Your task to perform on an android device: stop showing notifications on the lock screen Image 0: 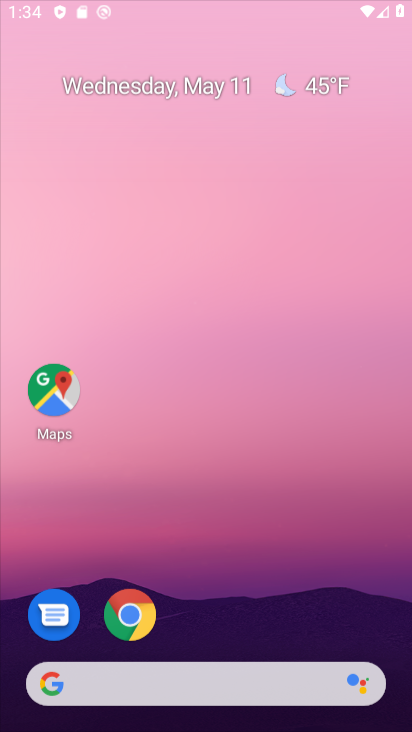
Step 0: drag from (351, 594) to (352, 162)
Your task to perform on an android device: stop showing notifications on the lock screen Image 1: 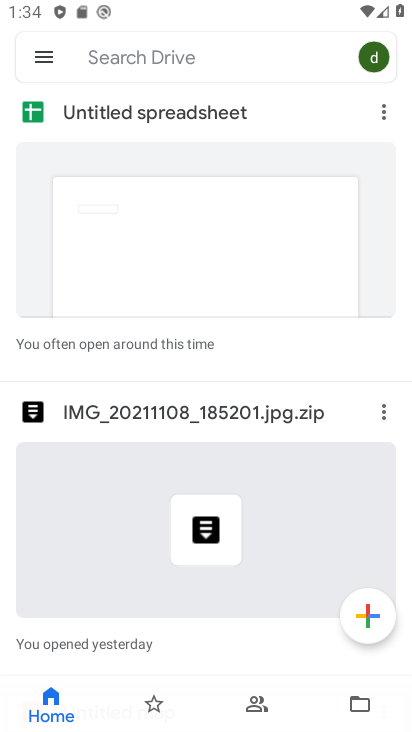
Step 1: press home button
Your task to perform on an android device: stop showing notifications on the lock screen Image 2: 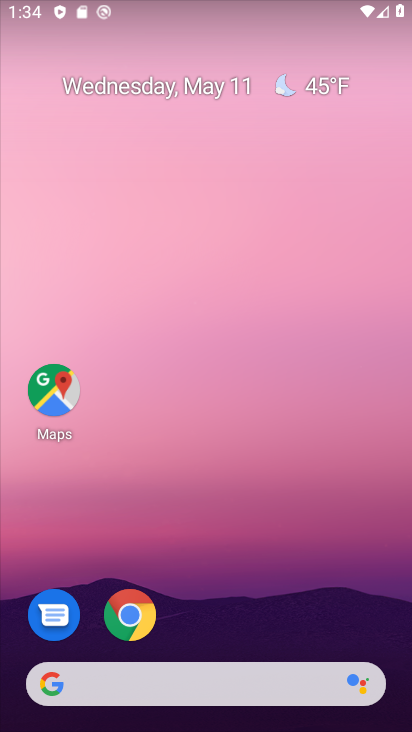
Step 2: drag from (358, 610) to (359, 118)
Your task to perform on an android device: stop showing notifications on the lock screen Image 3: 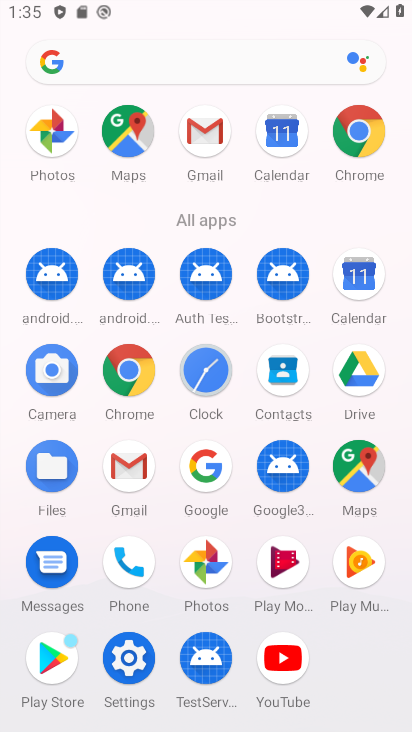
Step 3: click (129, 663)
Your task to perform on an android device: stop showing notifications on the lock screen Image 4: 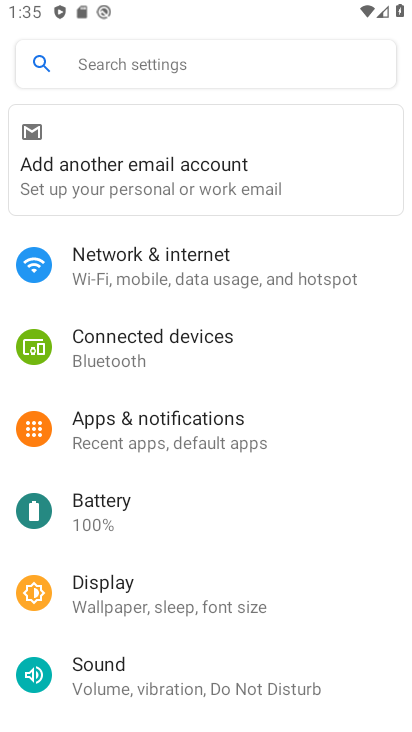
Step 4: click (180, 418)
Your task to perform on an android device: stop showing notifications on the lock screen Image 5: 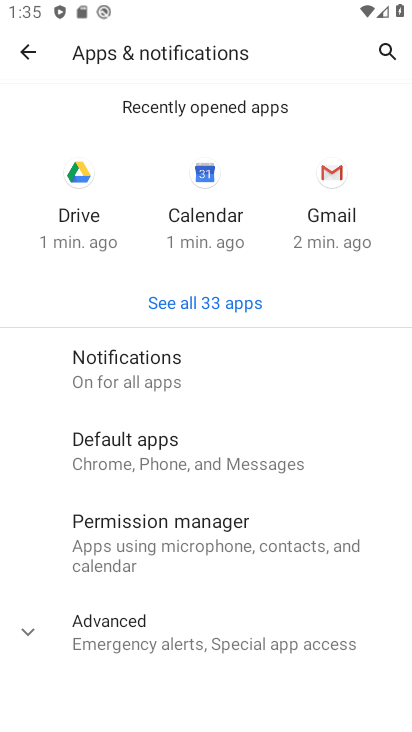
Step 5: click (157, 381)
Your task to perform on an android device: stop showing notifications on the lock screen Image 6: 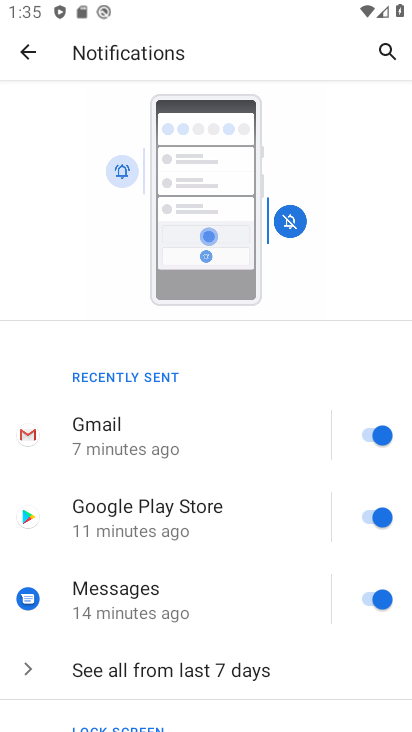
Step 6: drag from (198, 614) to (239, 310)
Your task to perform on an android device: stop showing notifications on the lock screen Image 7: 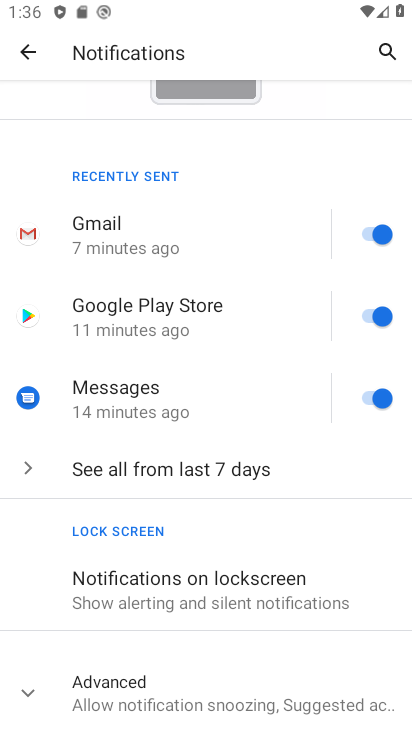
Step 7: drag from (259, 638) to (273, 380)
Your task to perform on an android device: stop showing notifications on the lock screen Image 8: 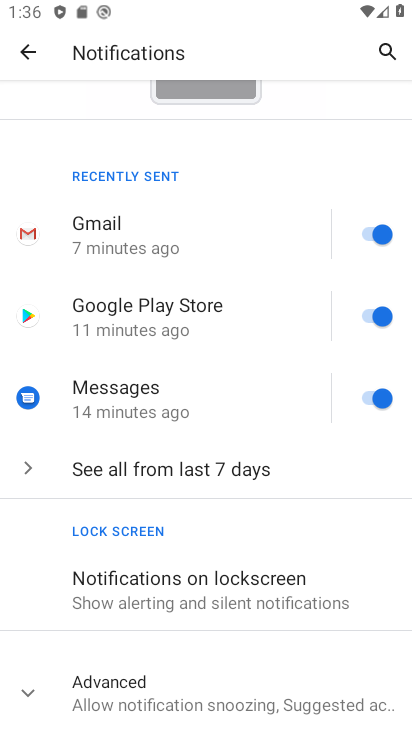
Step 8: click (212, 570)
Your task to perform on an android device: stop showing notifications on the lock screen Image 9: 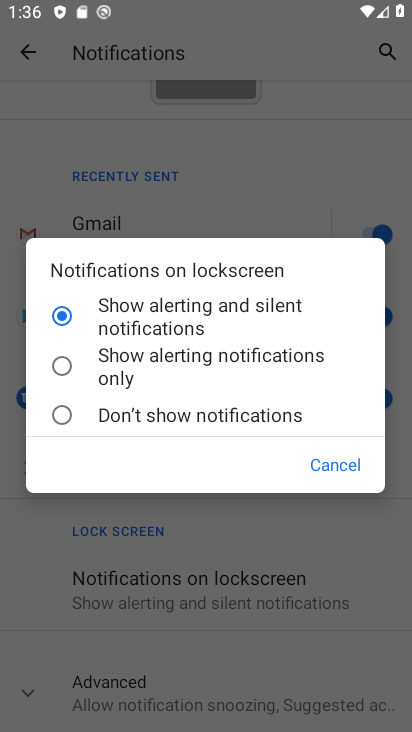
Step 9: click (132, 416)
Your task to perform on an android device: stop showing notifications on the lock screen Image 10: 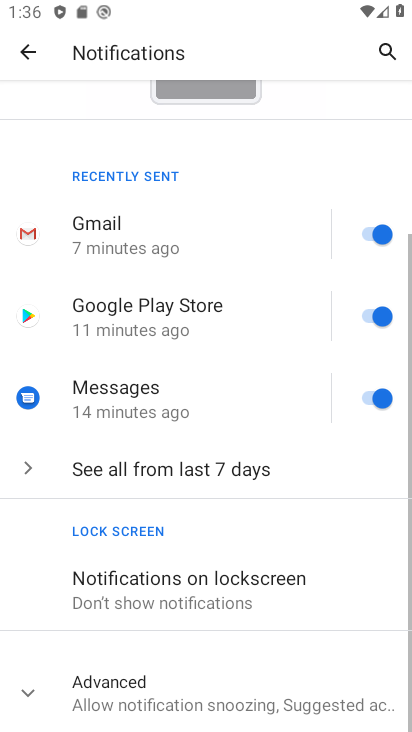
Step 10: task complete